Your task to perform on an android device: install app "Roku - Official Remote Control" Image 0: 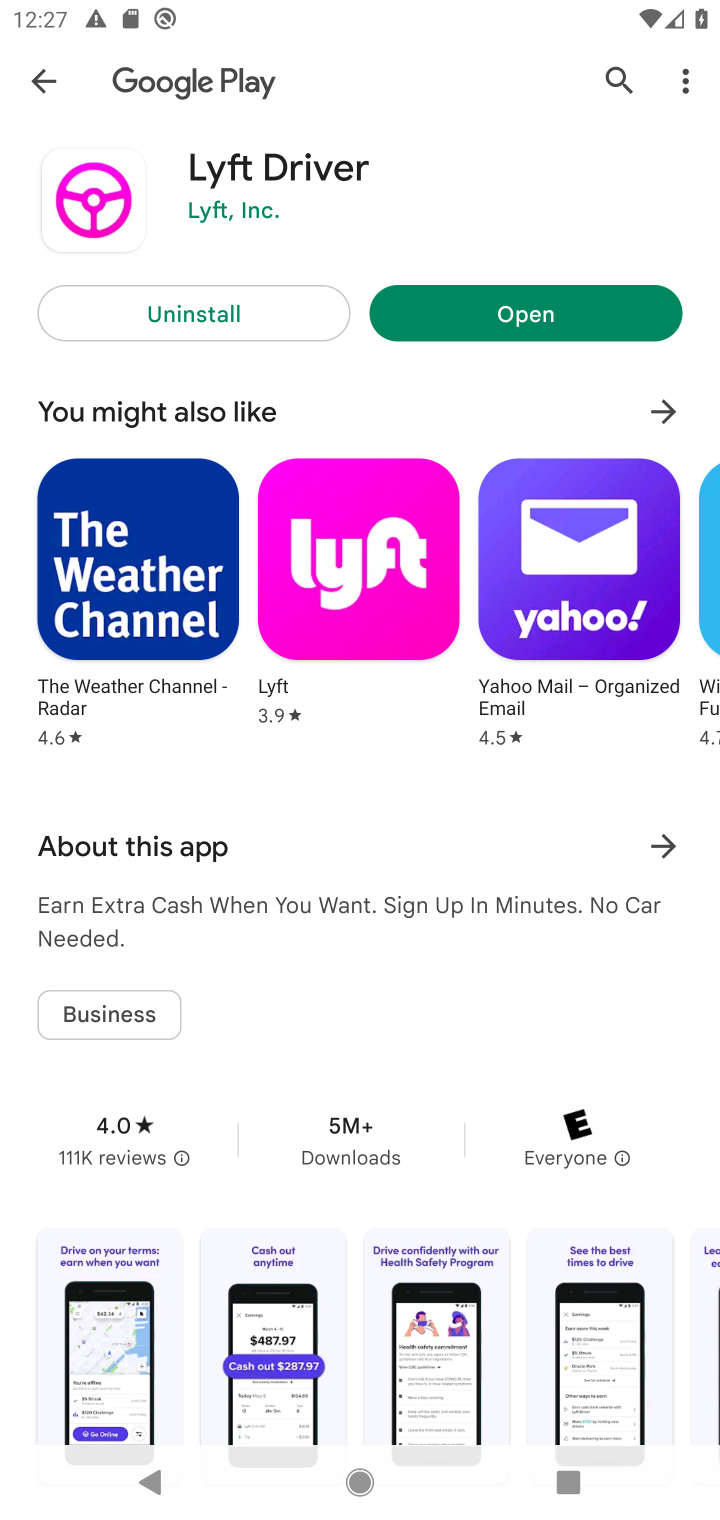
Step 0: click (607, 78)
Your task to perform on an android device: install app "Roku - Official Remote Control" Image 1: 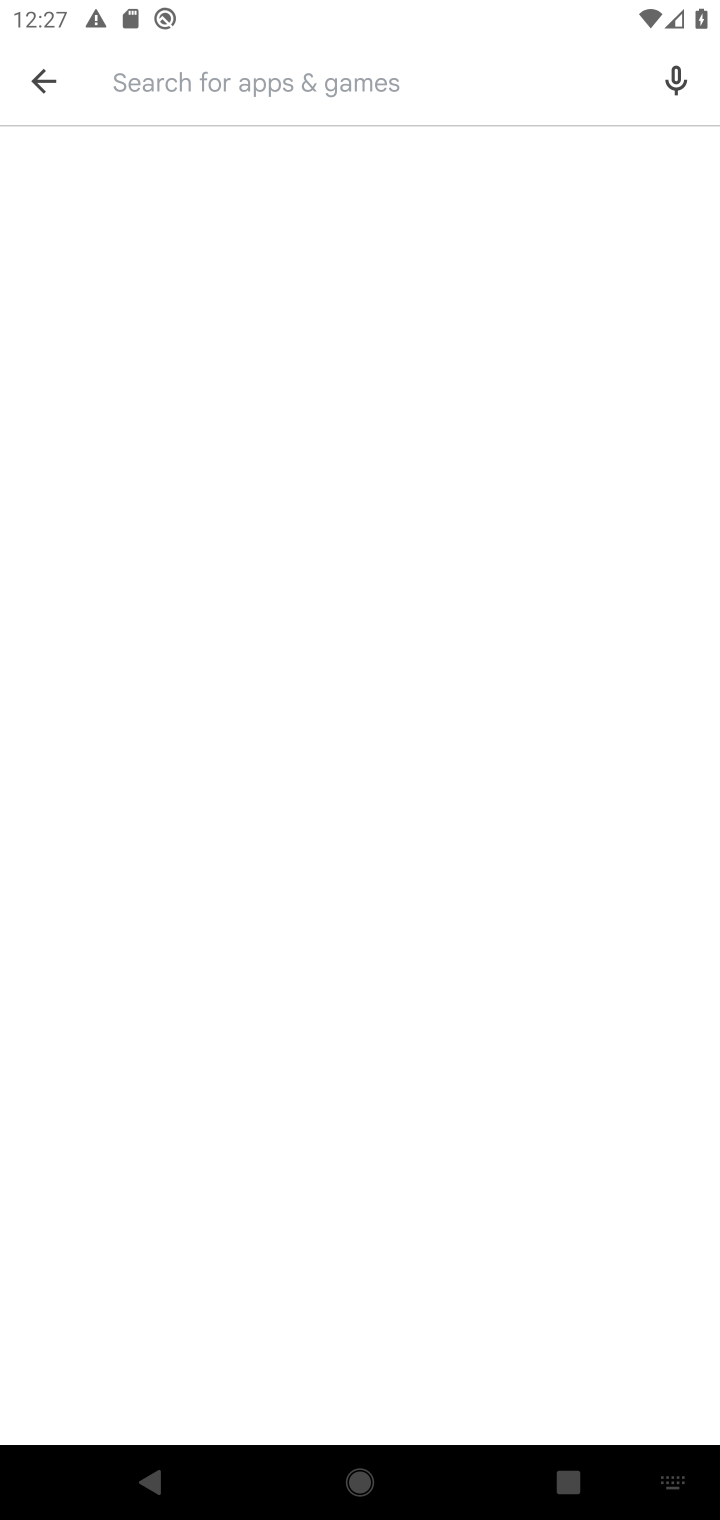
Step 1: type "roku"
Your task to perform on an android device: install app "Roku - Official Remote Control" Image 2: 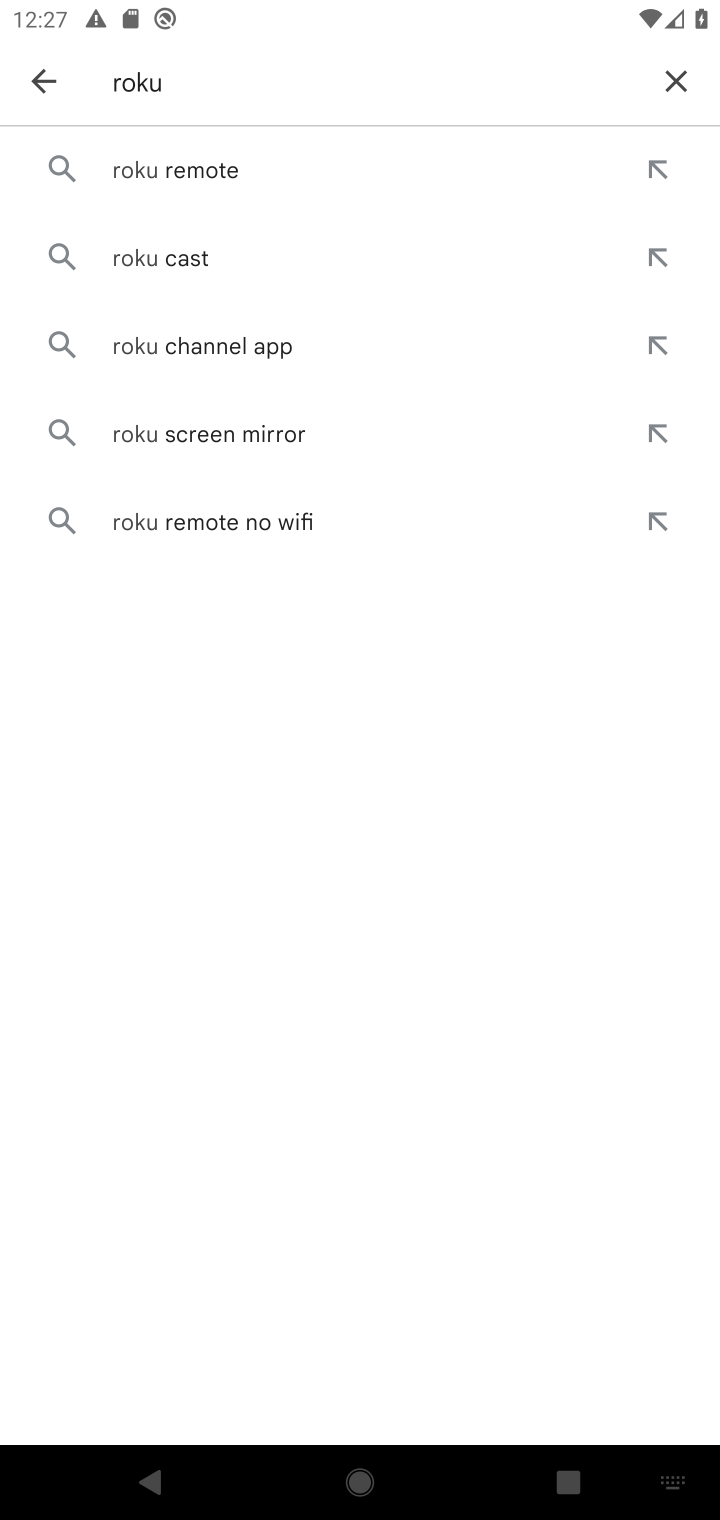
Step 2: click (244, 165)
Your task to perform on an android device: install app "Roku - Official Remote Control" Image 3: 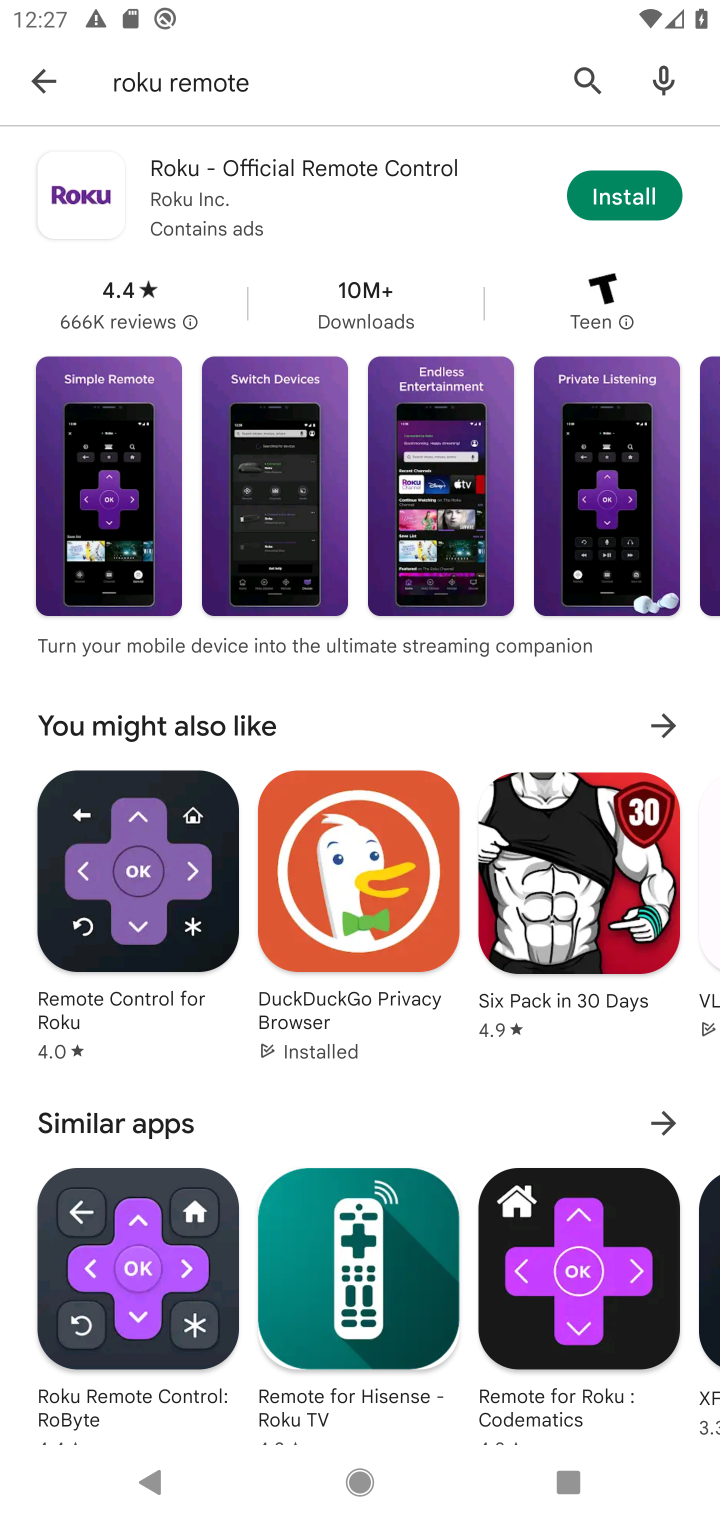
Step 3: click (621, 194)
Your task to perform on an android device: install app "Roku - Official Remote Control" Image 4: 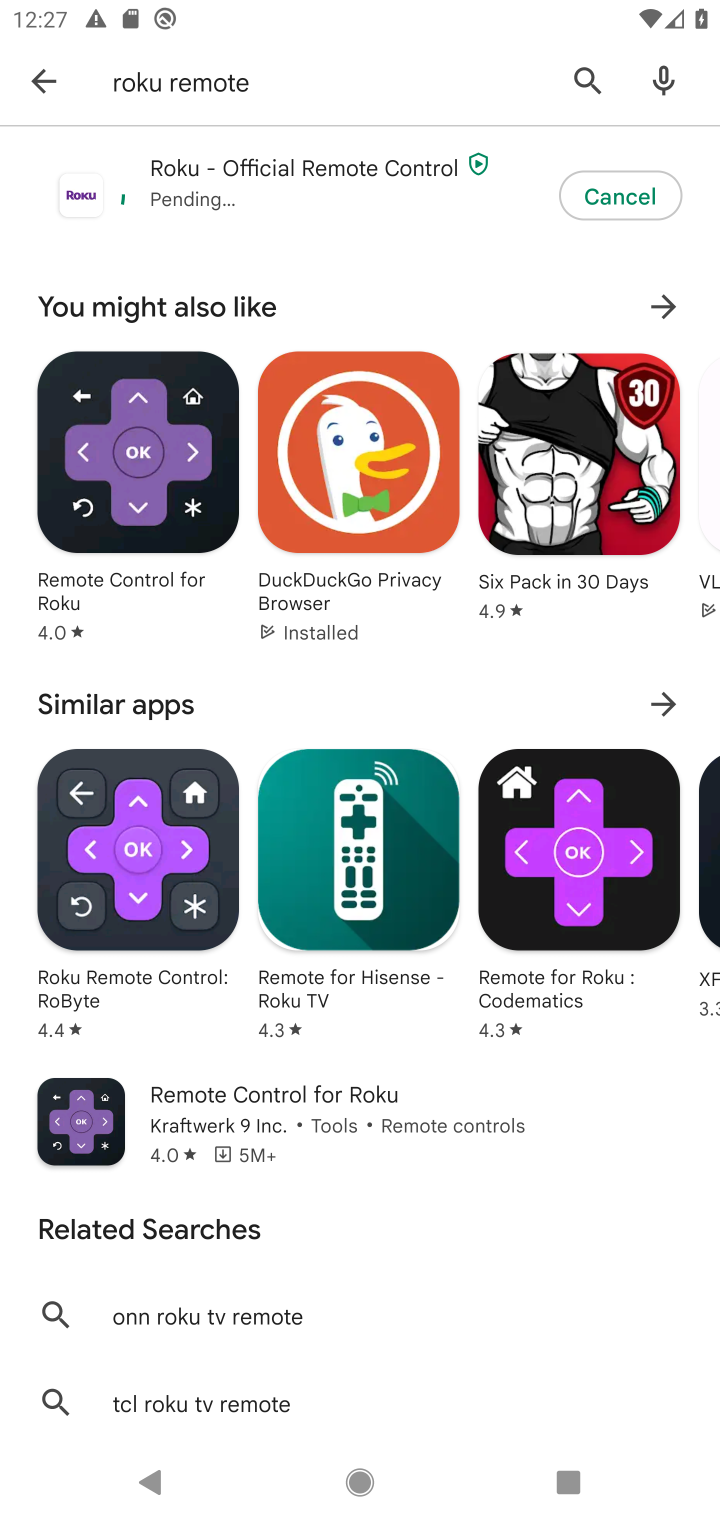
Step 4: task complete